Your task to perform on an android device: Go to sound settings Image 0: 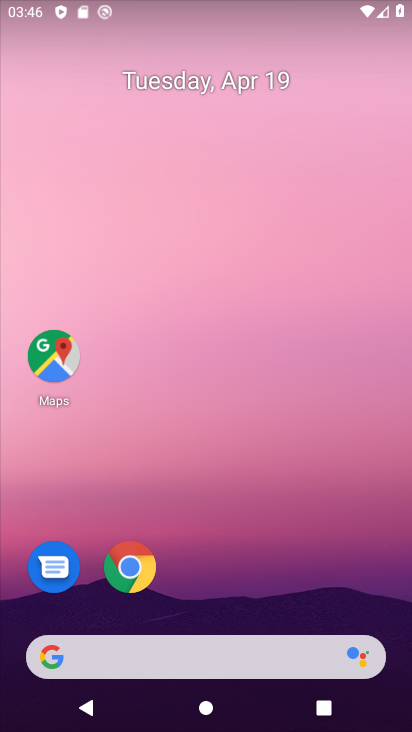
Step 0: drag from (223, 559) to (294, 3)
Your task to perform on an android device: Go to sound settings Image 1: 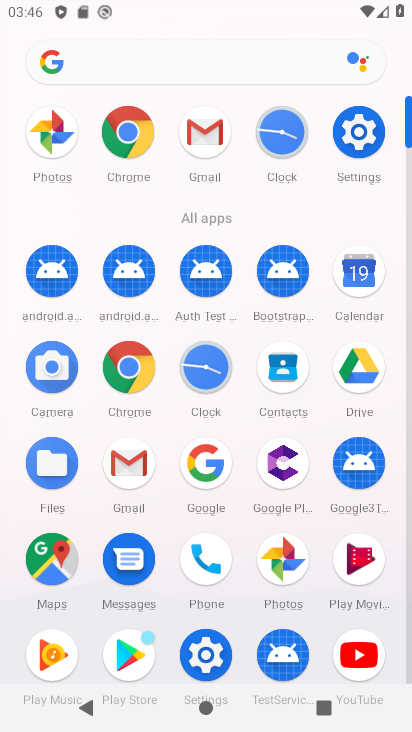
Step 1: click (207, 659)
Your task to perform on an android device: Go to sound settings Image 2: 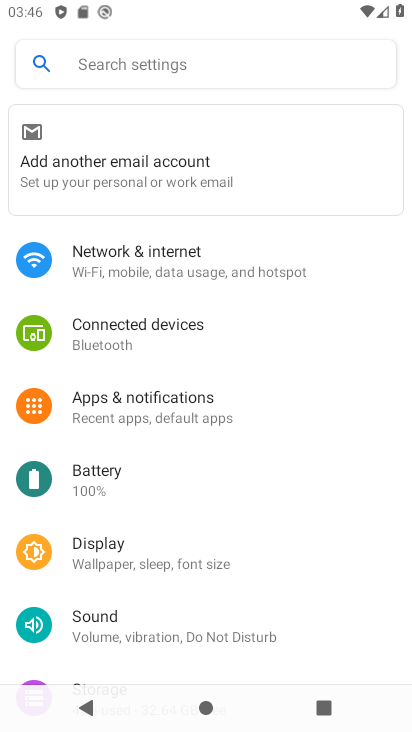
Step 2: click (123, 629)
Your task to perform on an android device: Go to sound settings Image 3: 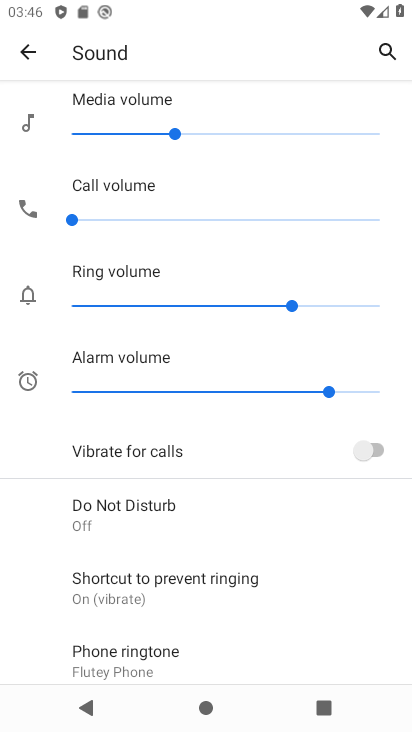
Step 3: drag from (188, 614) to (253, 306)
Your task to perform on an android device: Go to sound settings Image 4: 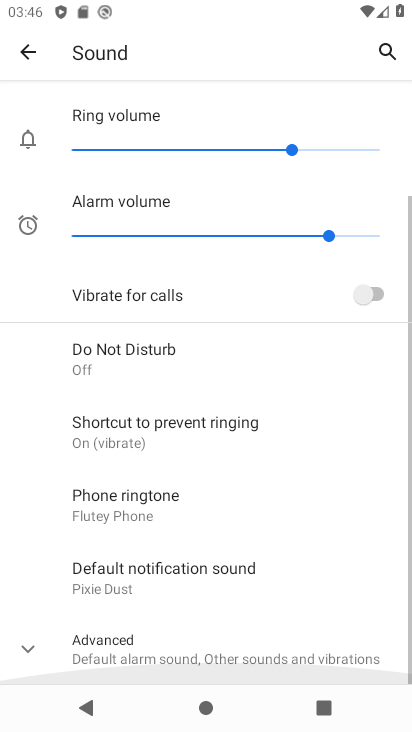
Step 4: drag from (176, 610) to (236, 332)
Your task to perform on an android device: Go to sound settings Image 5: 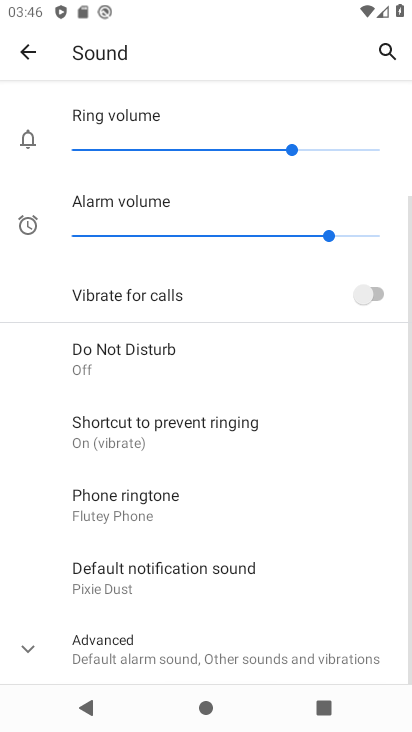
Step 5: click (194, 644)
Your task to perform on an android device: Go to sound settings Image 6: 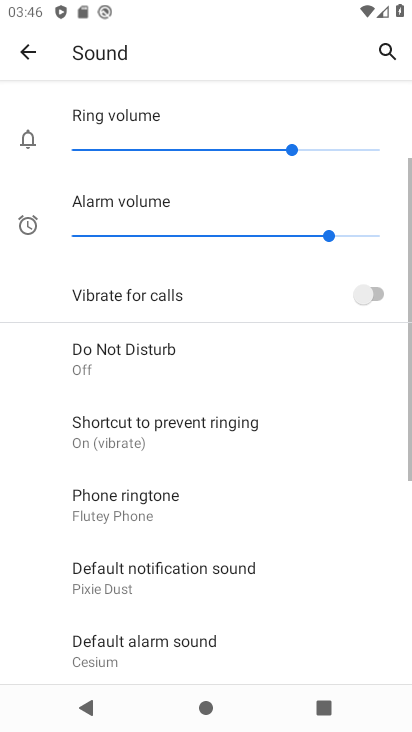
Step 6: task complete